Your task to perform on an android device: Open battery settings Image 0: 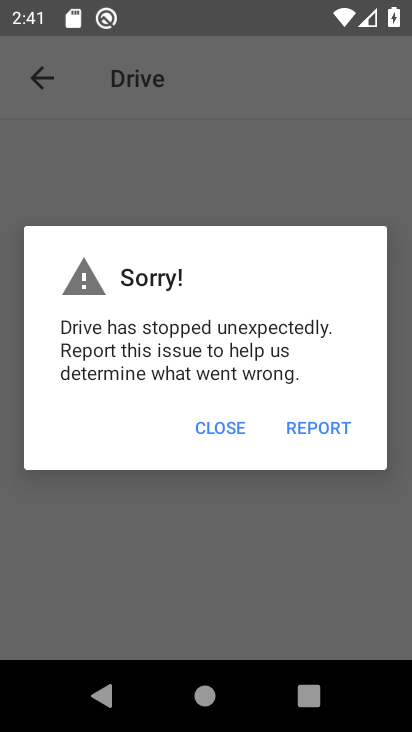
Step 0: press home button
Your task to perform on an android device: Open battery settings Image 1: 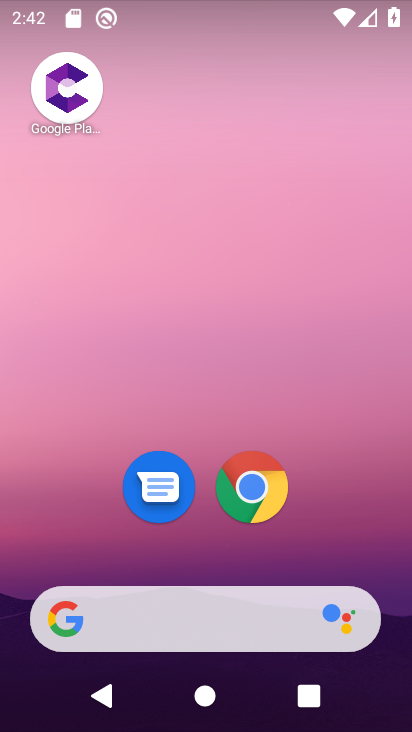
Step 1: drag from (390, 582) to (348, 270)
Your task to perform on an android device: Open battery settings Image 2: 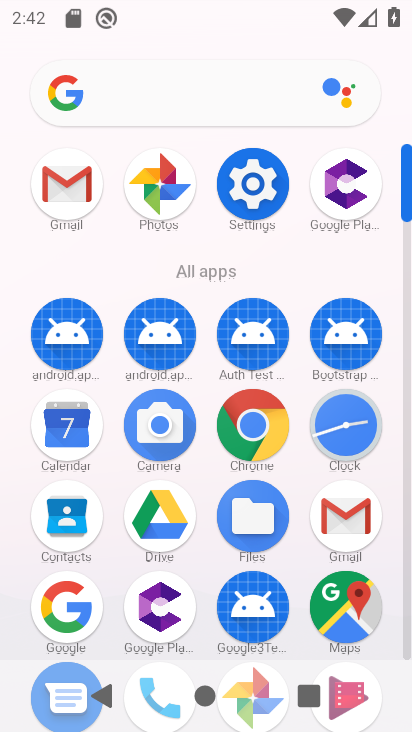
Step 2: click (264, 172)
Your task to perform on an android device: Open battery settings Image 3: 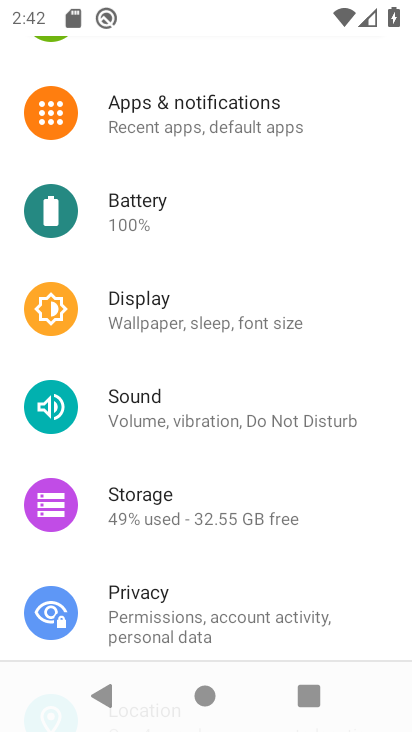
Step 3: click (223, 220)
Your task to perform on an android device: Open battery settings Image 4: 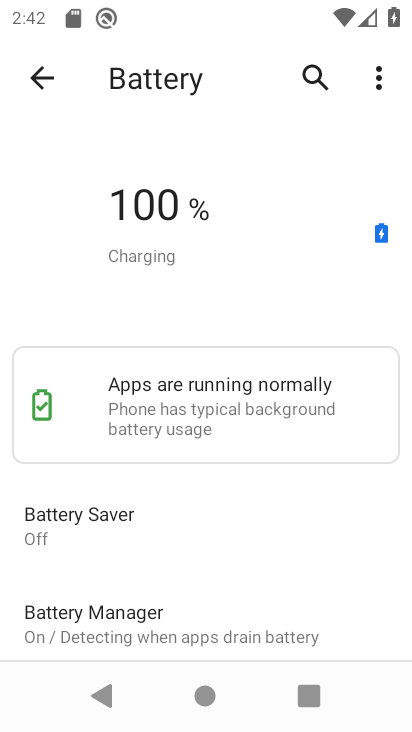
Step 4: task complete